Your task to perform on an android device: Open Youtube and go to "Your channel" Image 0: 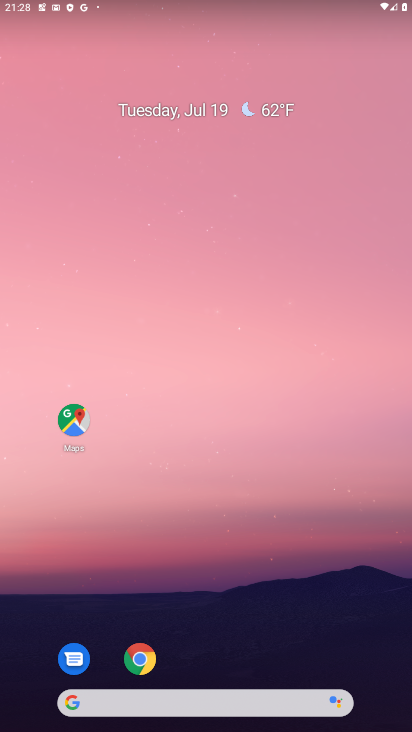
Step 0: press home button
Your task to perform on an android device: Open Youtube and go to "Your channel" Image 1: 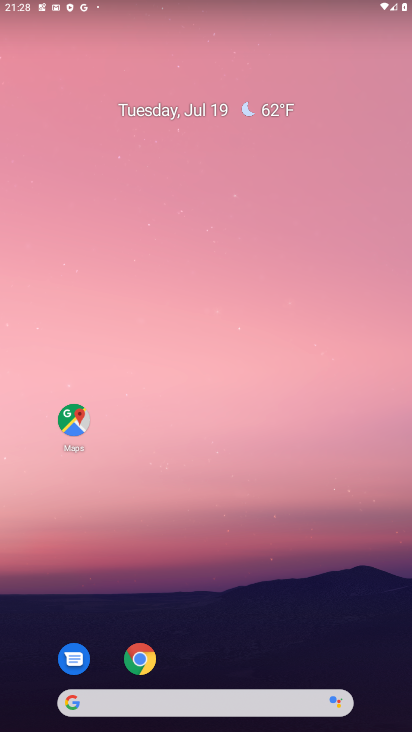
Step 1: drag from (216, 659) to (161, 292)
Your task to perform on an android device: Open Youtube and go to "Your channel" Image 2: 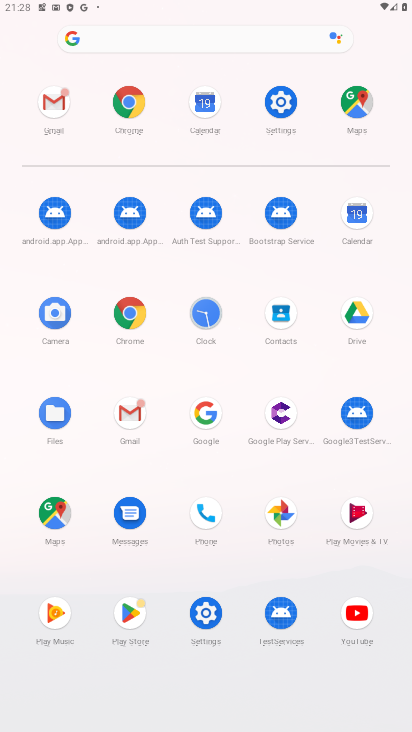
Step 2: click (339, 626)
Your task to perform on an android device: Open Youtube and go to "Your channel" Image 3: 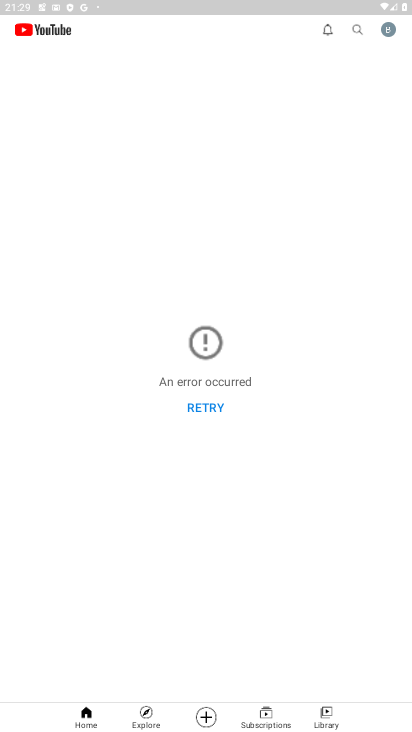
Step 3: click (388, 24)
Your task to perform on an android device: Open Youtube and go to "Your channel" Image 4: 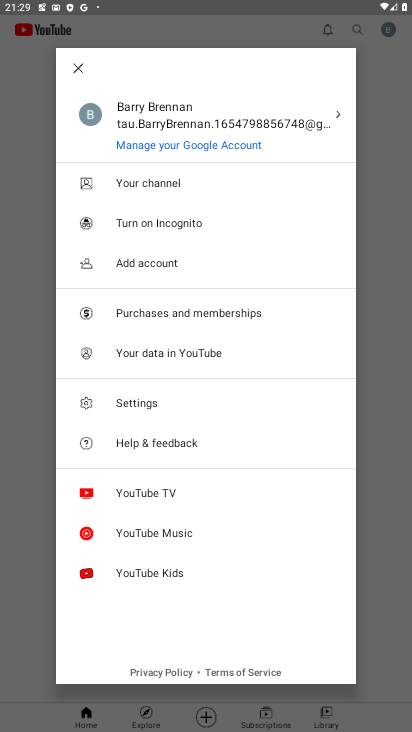
Step 4: click (140, 193)
Your task to perform on an android device: Open Youtube and go to "Your channel" Image 5: 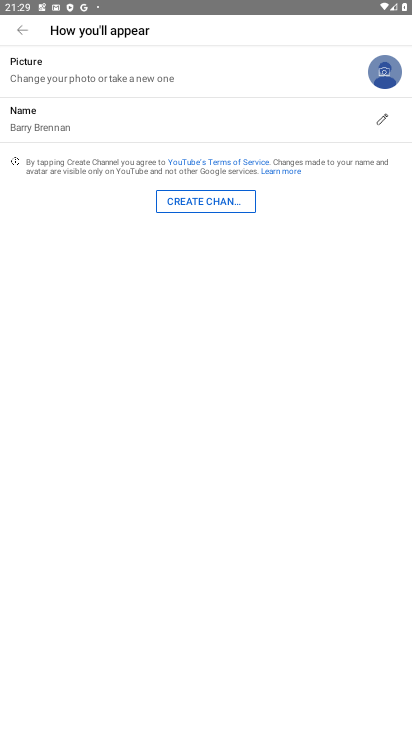
Step 5: task complete